Your task to perform on an android device: Open settings Image 0: 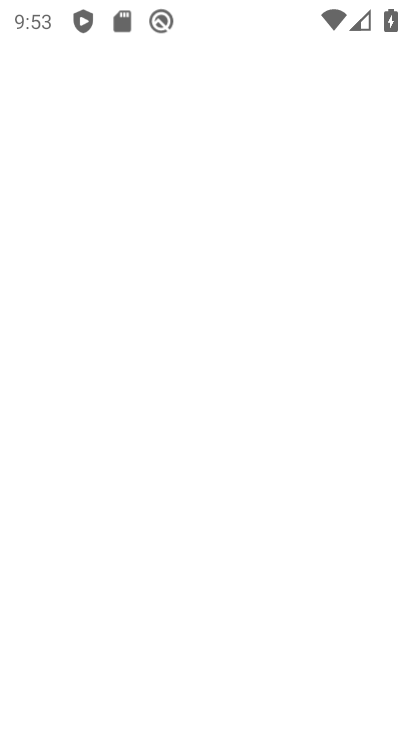
Step 0: press home button
Your task to perform on an android device: Open settings Image 1: 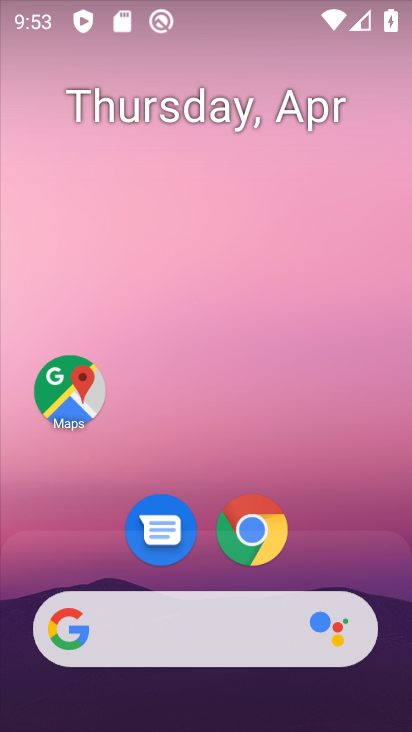
Step 1: drag from (205, 612) to (202, 125)
Your task to perform on an android device: Open settings Image 2: 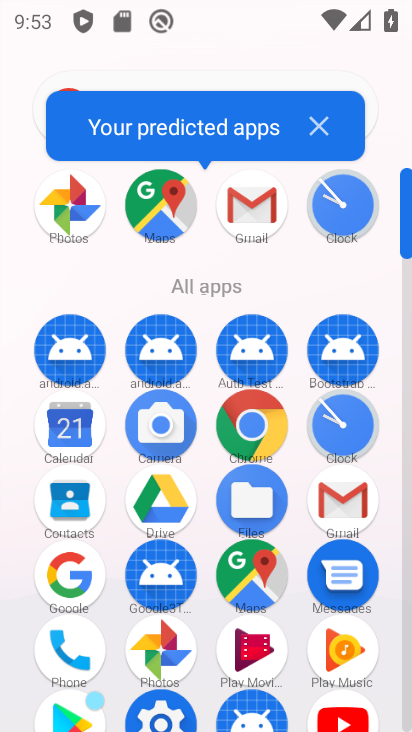
Step 2: click (164, 709)
Your task to perform on an android device: Open settings Image 3: 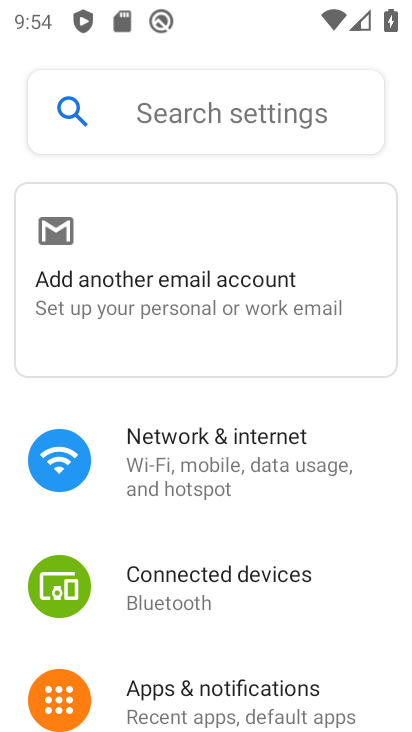
Step 3: task complete